Your task to perform on an android device: add a label to a message in the gmail app Image 0: 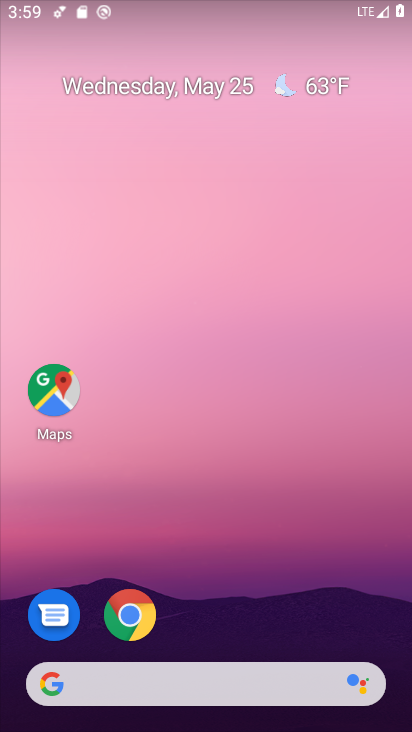
Step 0: drag from (291, 613) to (245, 115)
Your task to perform on an android device: add a label to a message in the gmail app Image 1: 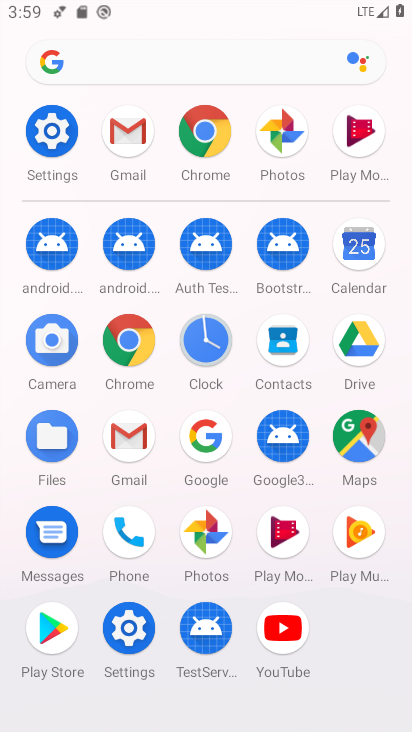
Step 1: click (122, 439)
Your task to perform on an android device: add a label to a message in the gmail app Image 2: 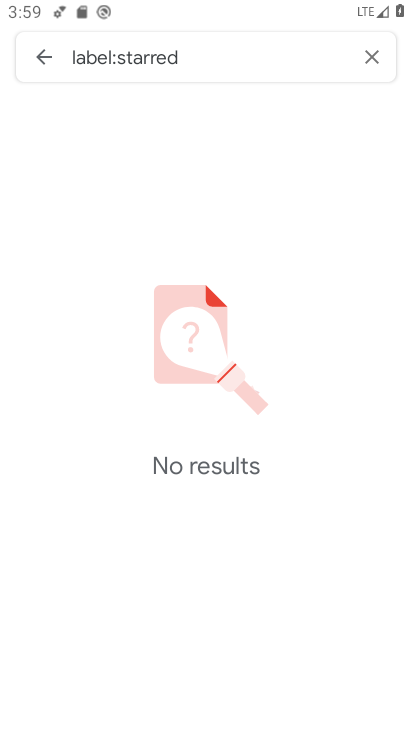
Step 2: click (41, 53)
Your task to perform on an android device: add a label to a message in the gmail app Image 3: 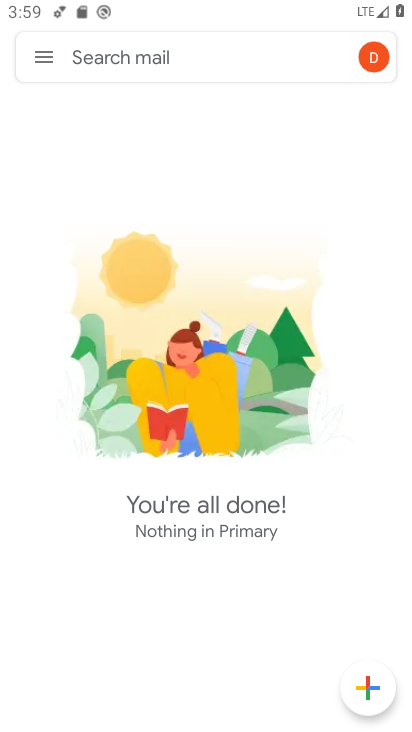
Step 3: click (45, 51)
Your task to perform on an android device: add a label to a message in the gmail app Image 4: 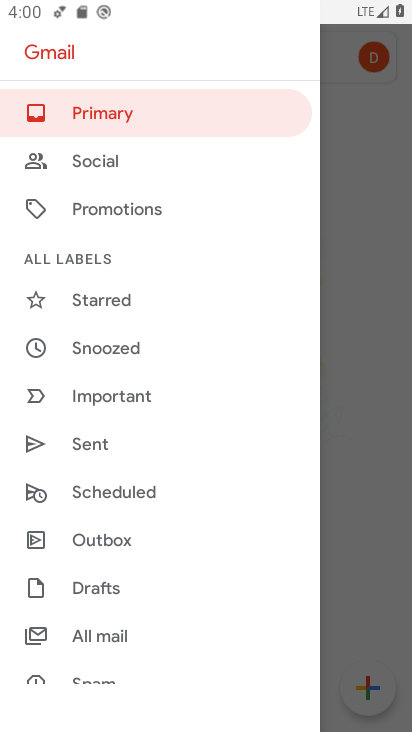
Step 4: click (171, 99)
Your task to perform on an android device: add a label to a message in the gmail app Image 5: 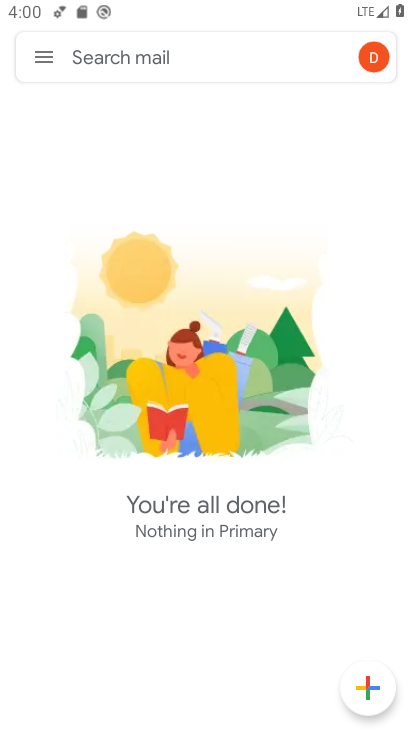
Step 5: click (52, 57)
Your task to perform on an android device: add a label to a message in the gmail app Image 6: 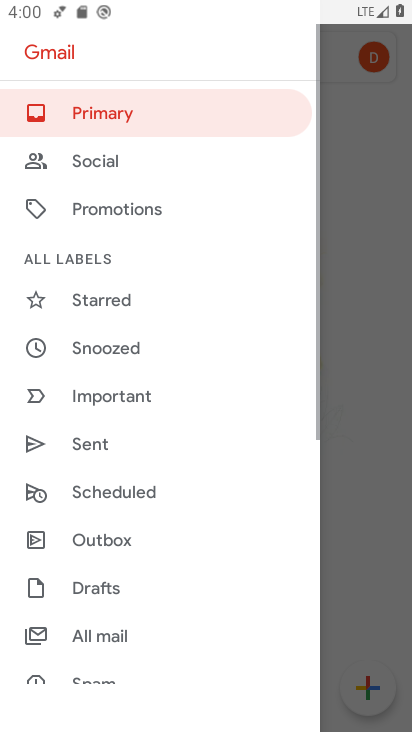
Step 6: drag from (210, 518) to (222, 218)
Your task to perform on an android device: add a label to a message in the gmail app Image 7: 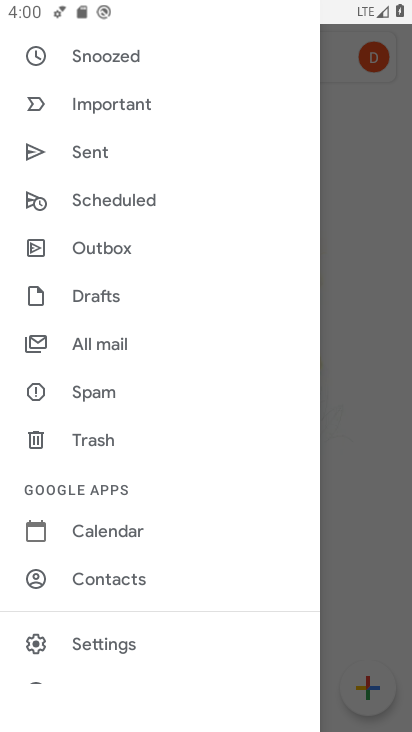
Step 7: click (135, 353)
Your task to perform on an android device: add a label to a message in the gmail app Image 8: 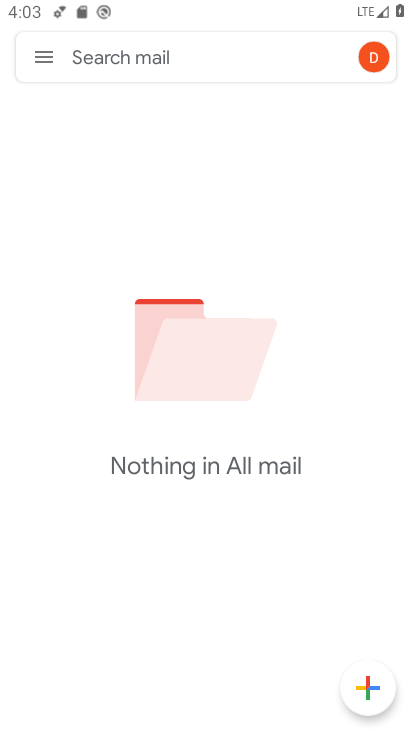
Step 8: task complete